Your task to perform on an android device: Show me popular videos on Youtube Image 0: 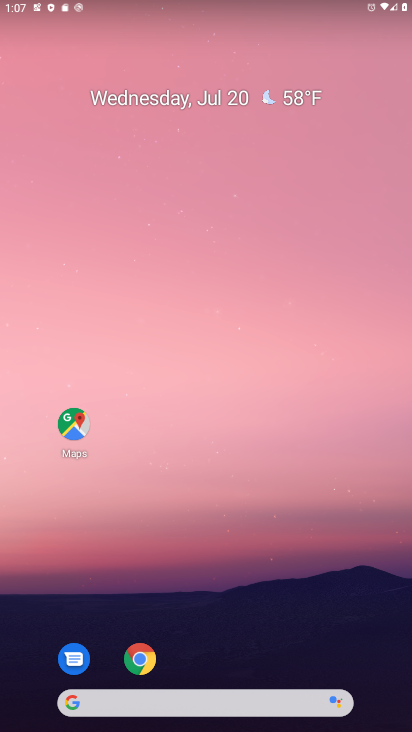
Step 0: drag from (209, 664) to (230, 8)
Your task to perform on an android device: Show me popular videos on Youtube Image 1: 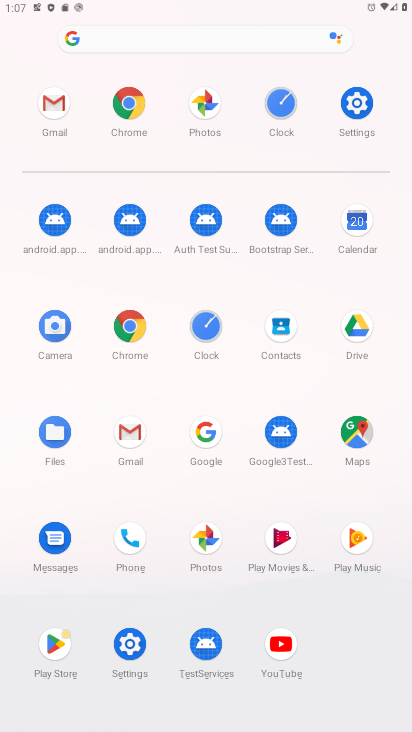
Step 1: click (278, 633)
Your task to perform on an android device: Show me popular videos on Youtube Image 2: 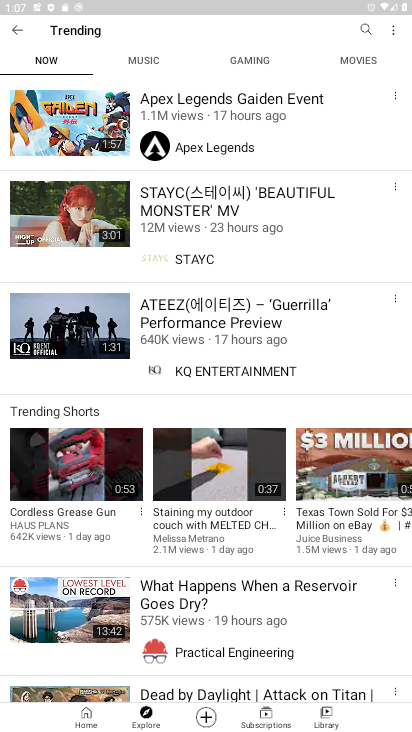
Step 2: task complete